Your task to perform on an android device: Show the shopping cart on bestbuy.com. Add lg ultragear to the cart on bestbuy.com, then select checkout. Image 0: 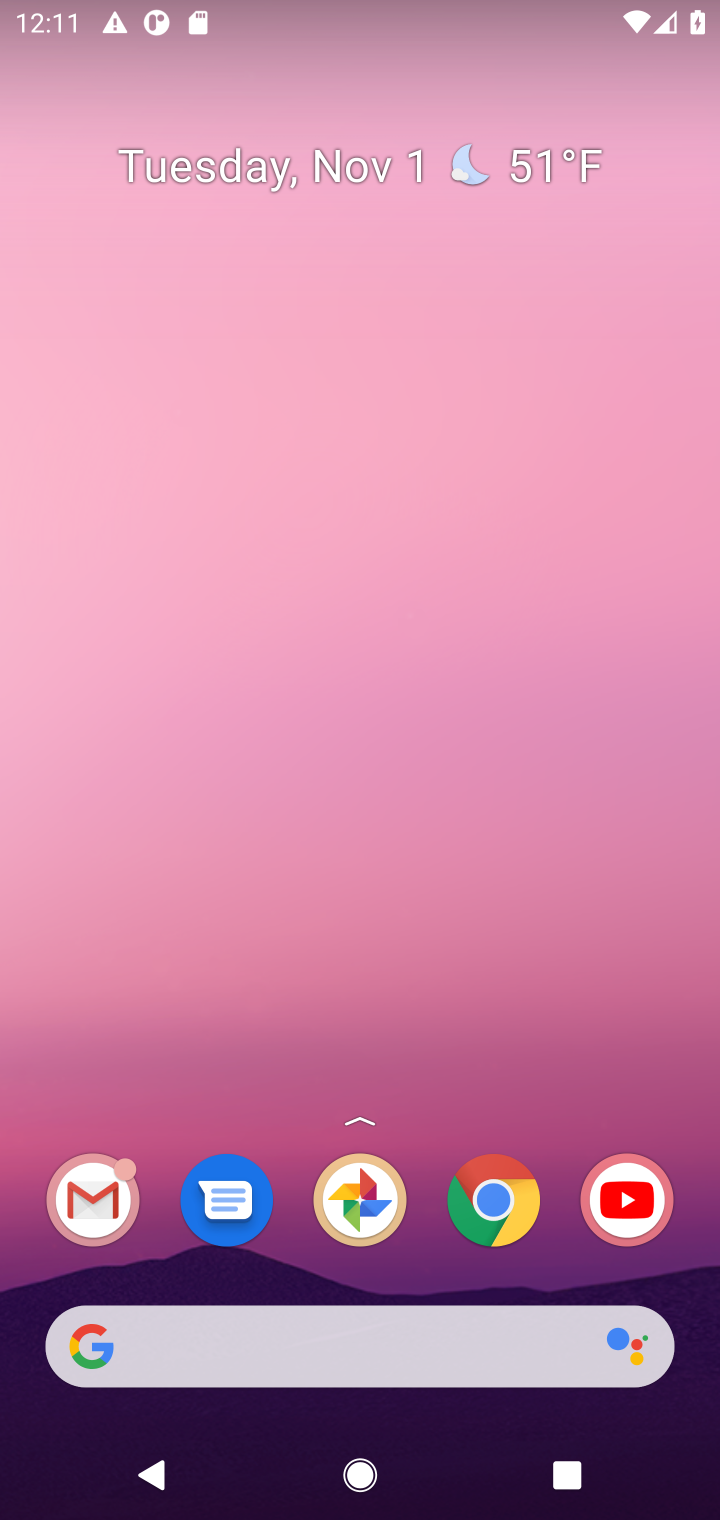
Step 0: click (507, 1201)
Your task to perform on an android device: Show the shopping cart on bestbuy.com. Add lg ultragear to the cart on bestbuy.com, then select checkout. Image 1: 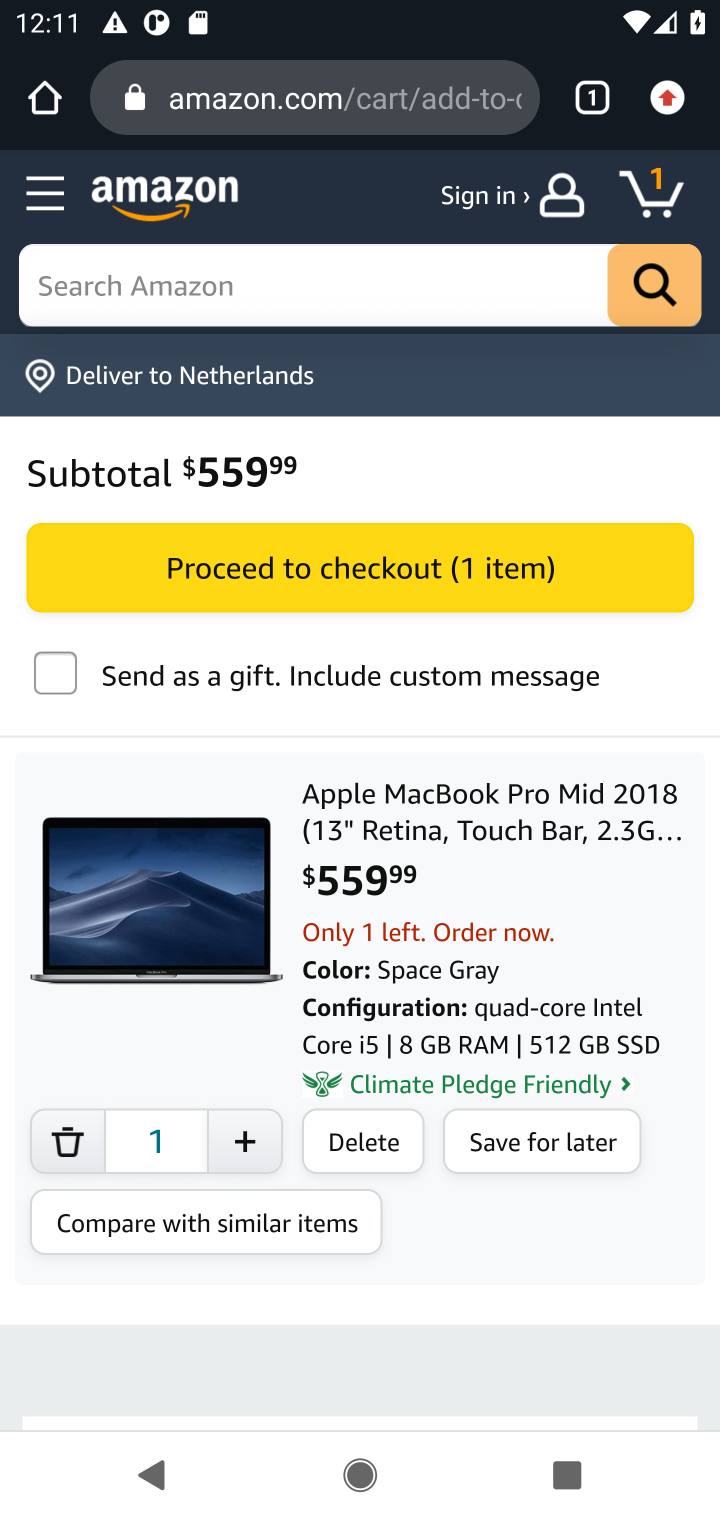
Step 1: click (327, 115)
Your task to perform on an android device: Show the shopping cart on bestbuy.com. Add lg ultragear to the cart on bestbuy.com, then select checkout. Image 2: 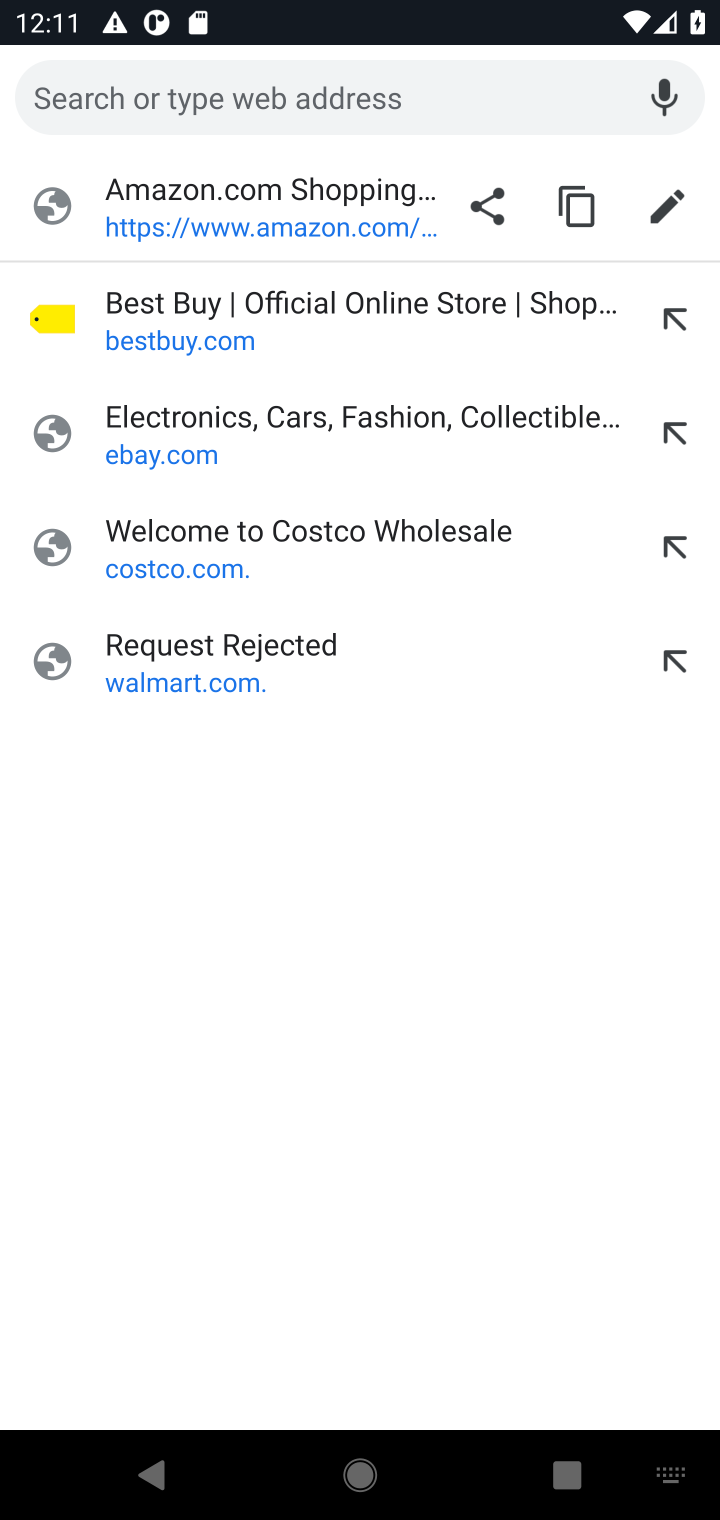
Step 2: type "bestbuy.com"
Your task to perform on an android device: Show the shopping cart on bestbuy.com. Add lg ultragear to the cart on bestbuy.com, then select checkout. Image 3: 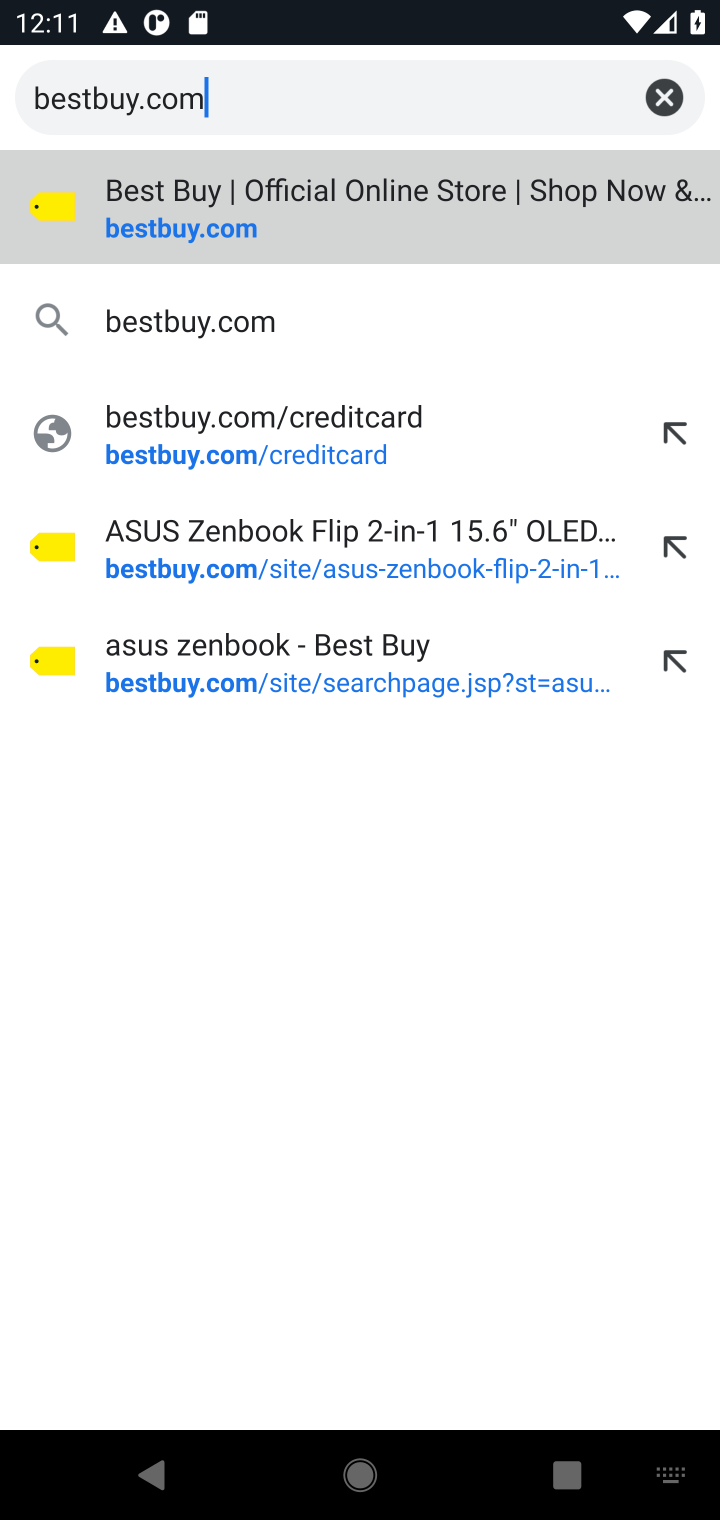
Step 3: click (196, 249)
Your task to perform on an android device: Show the shopping cart on bestbuy.com. Add lg ultragear to the cart on bestbuy.com, then select checkout. Image 4: 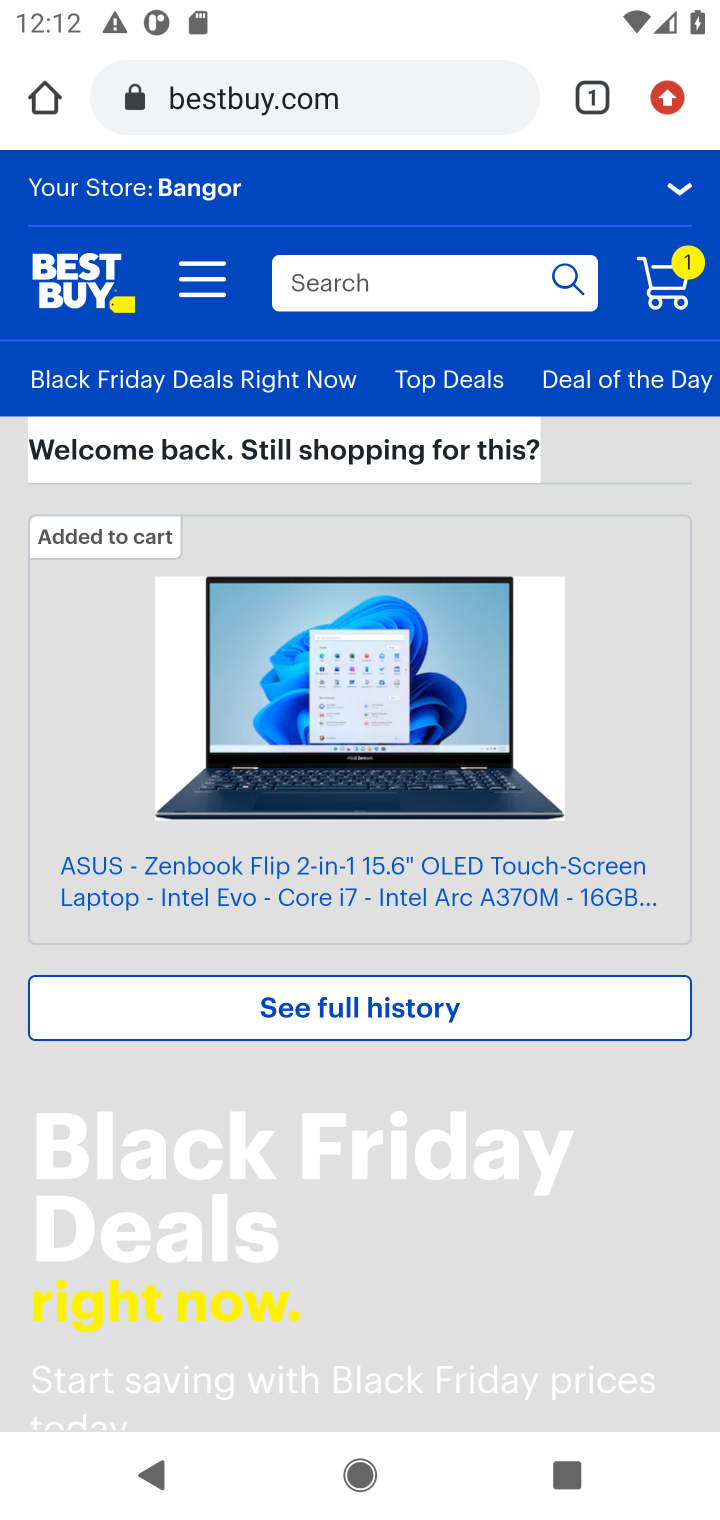
Step 4: click (668, 286)
Your task to perform on an android device: Show the shopping cart on bestbuy.com. Add lg ultragear to the cart on bestbuy.com, then select checkout. Image 5: 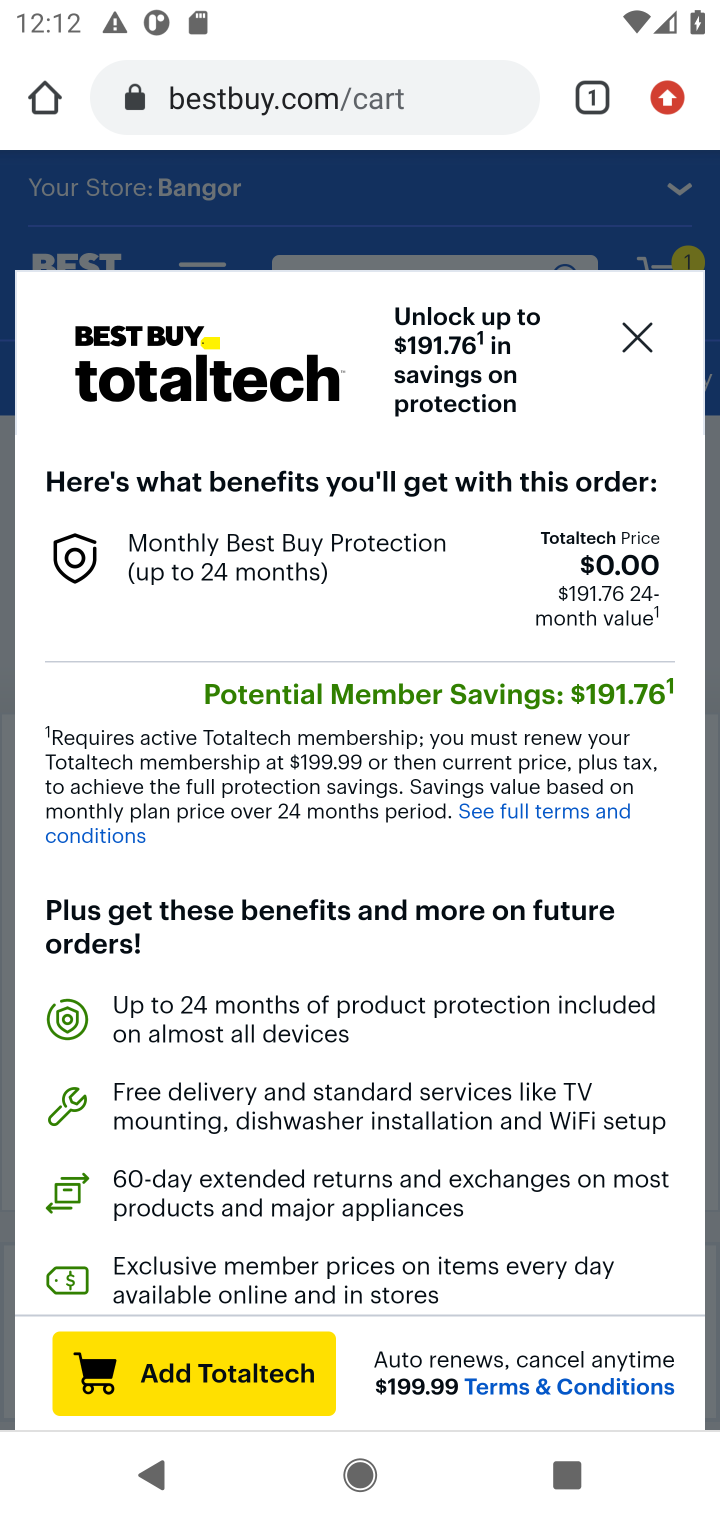
Step 5: click (625, 337)
Your task to perform on an android device: Show the shopping cart on bestbuy.com. Add lg ultragear to the cart on bestbuy.com, then select checkout. Image 6: 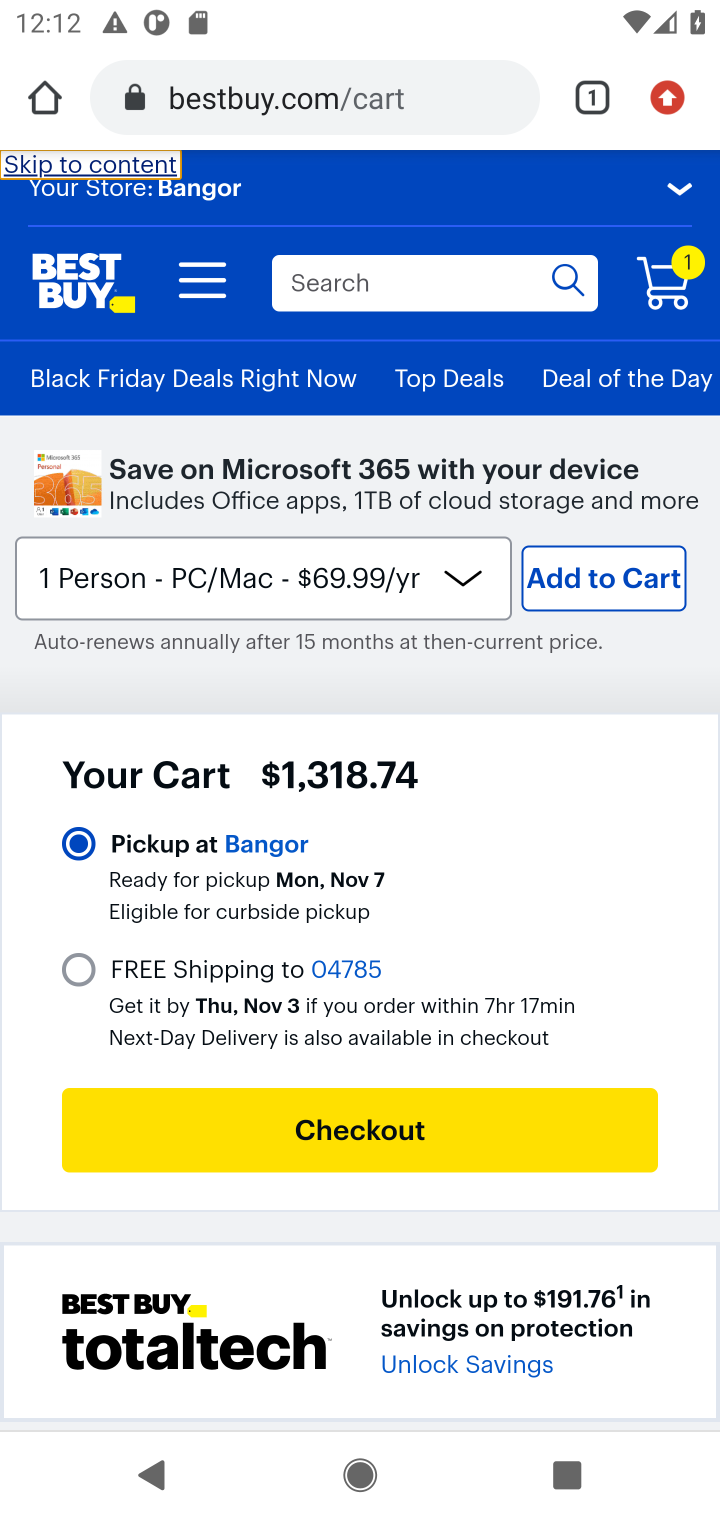
Step 6: click (409, 282)
Your task to perform on an android device: Show the shopping cart on bestbuy.com. Add lg ultragear to the cart on bestbuy.com, then select checkout. Image 7: 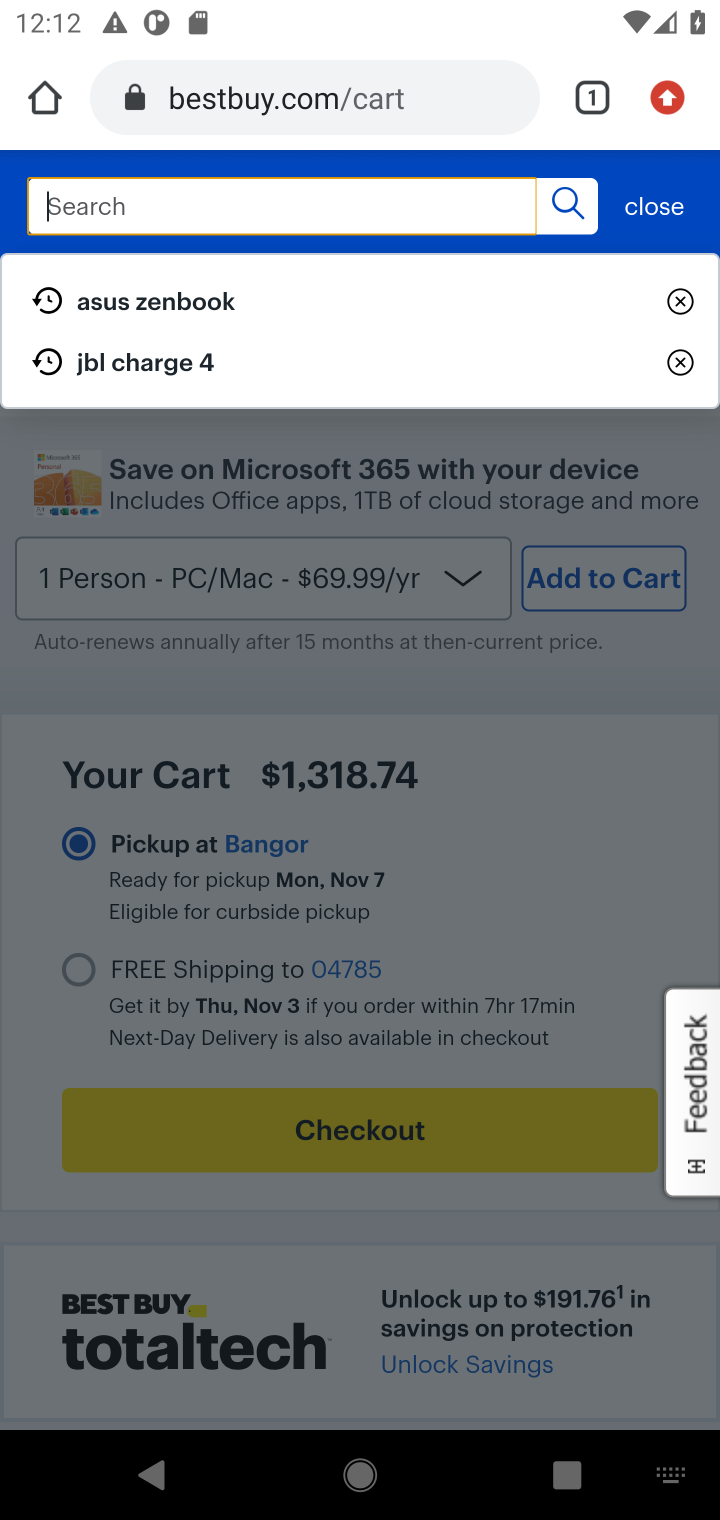
Step 7: type " lg ultragear "
Your task to perform on an android device: Show the shopping cart on bestbuy.com. Add lg ultragear to the cart on bestbuy.com, then select checkout. Image 8: 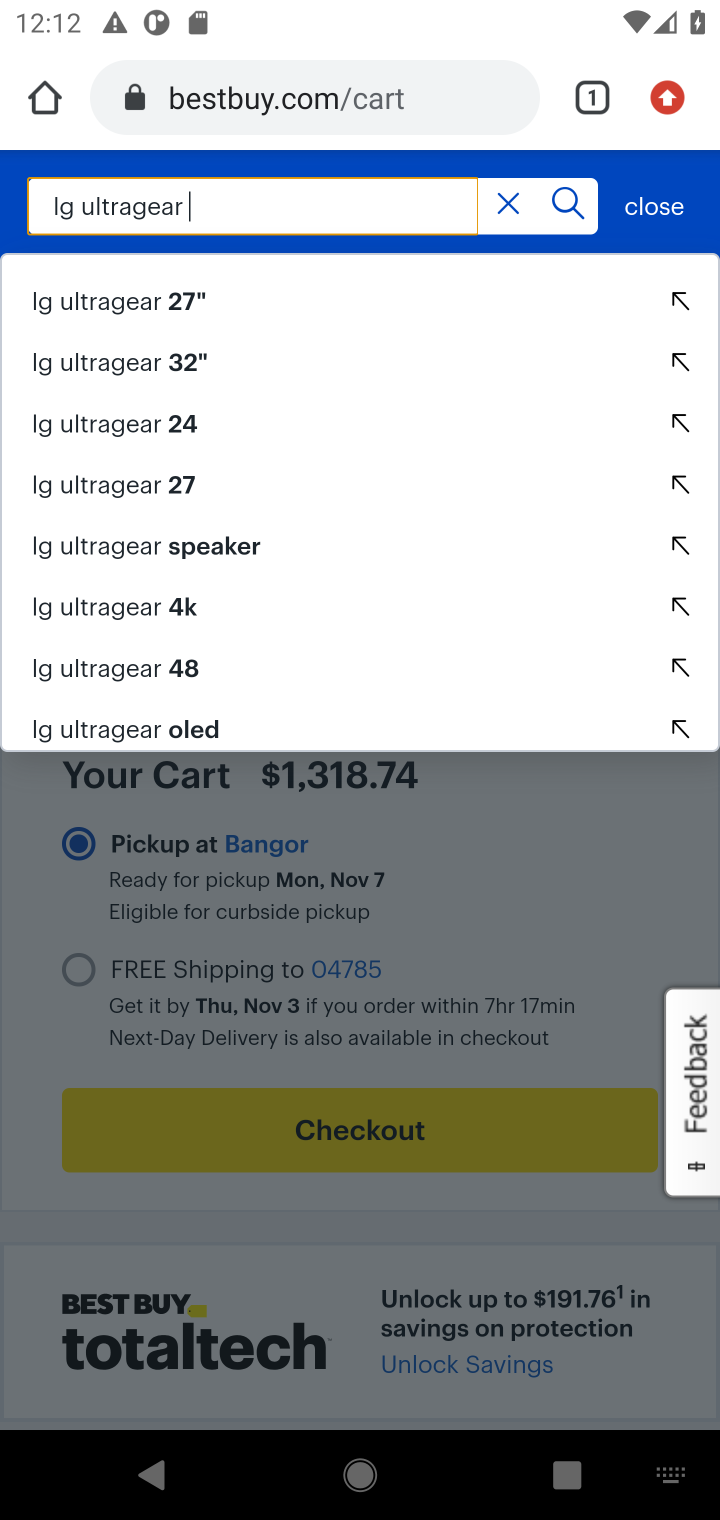
Step 8: click (133, 321)
Your task to perform on an android device: Show the shopping cart on bestbuy.com. Add lg ultragear to the cart on bestbuy.com, then select checkout. Image 9: 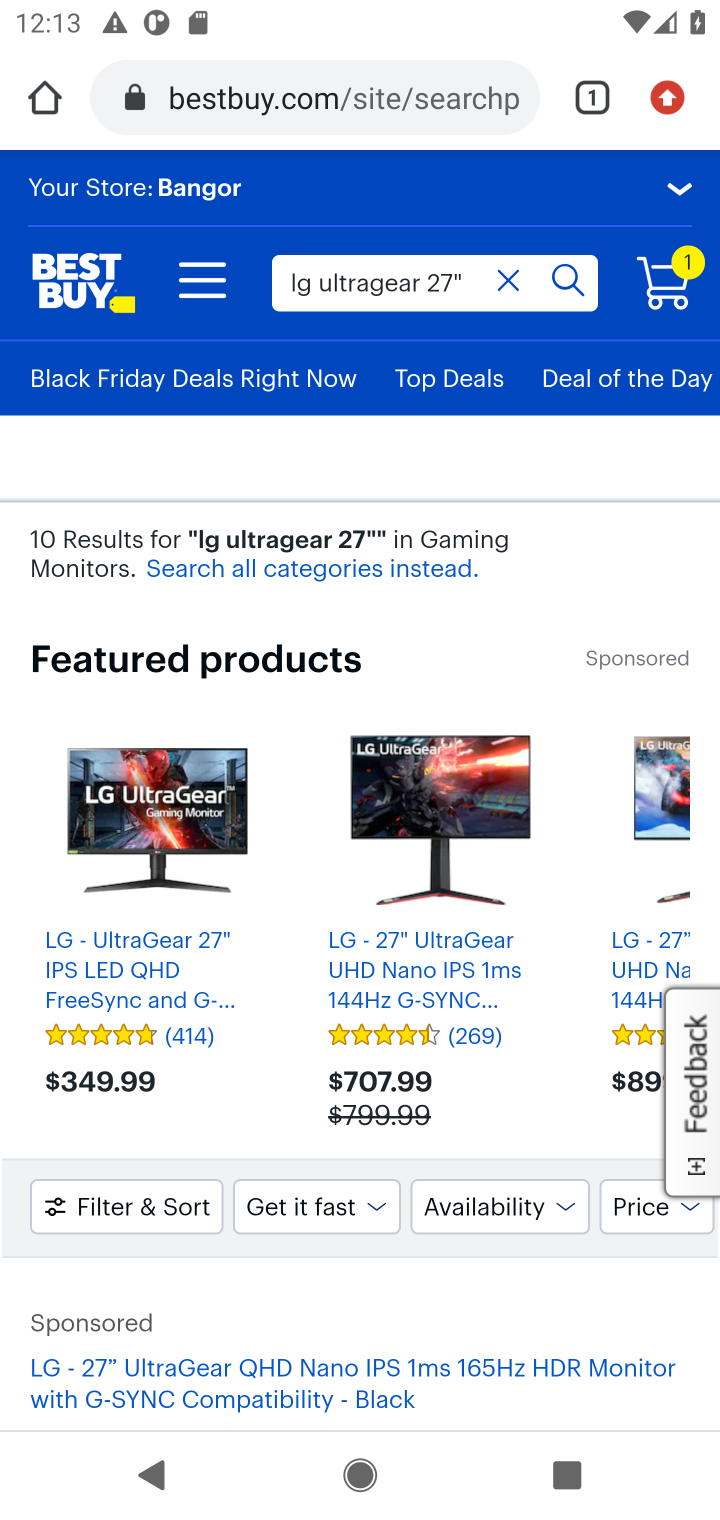
Step 9: drag from (267, 1100) to (308, 641)
Your task to perform on an android device: Show the shopping cart on bestbuy.com. Add lg ultragear to the cart on bestbuy.com, then select checkout. Image 10: 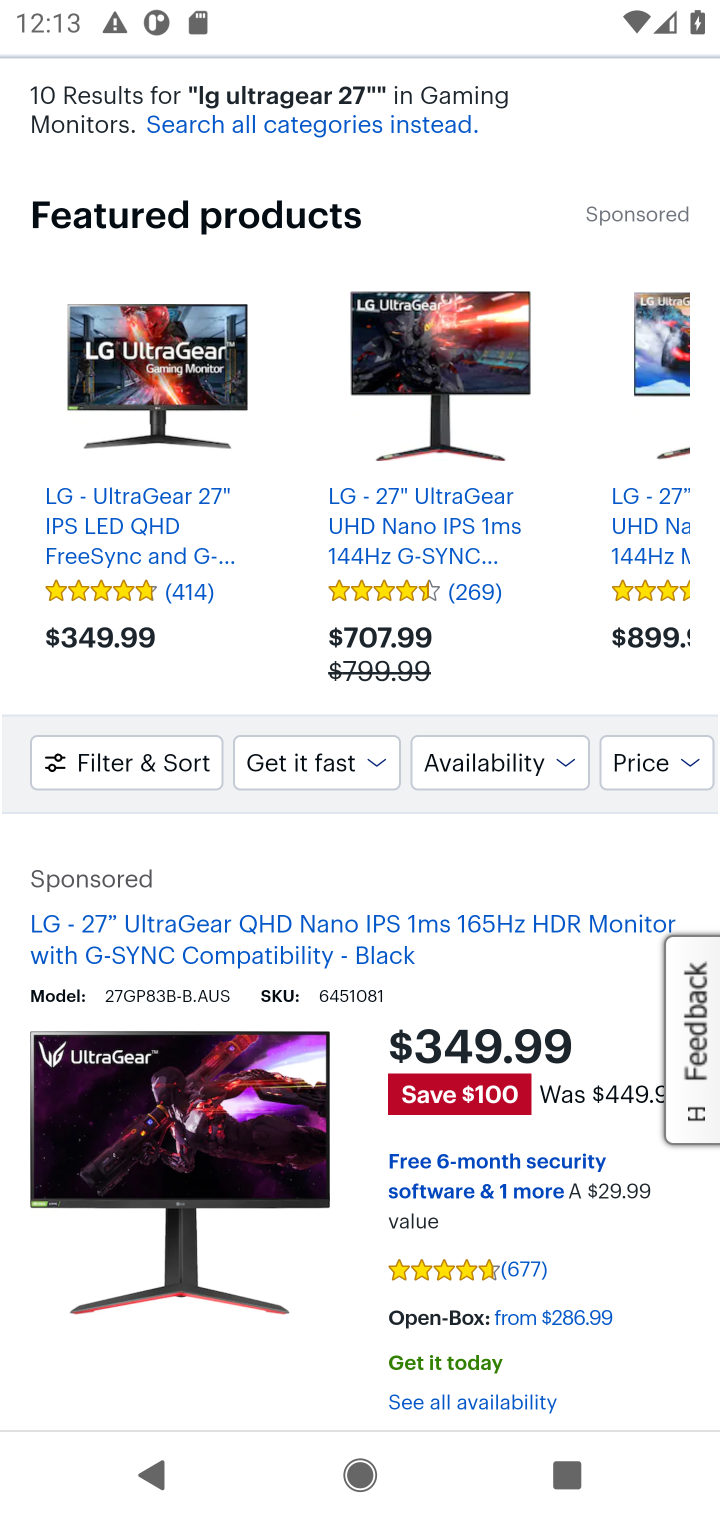
Step 10: click (225, 1169)
Your task to perform on an android device: Show the shopping cart on bestbuy.com. Add lg ultragear to the cart on bestbuy.com, then select checkout. Image 11: 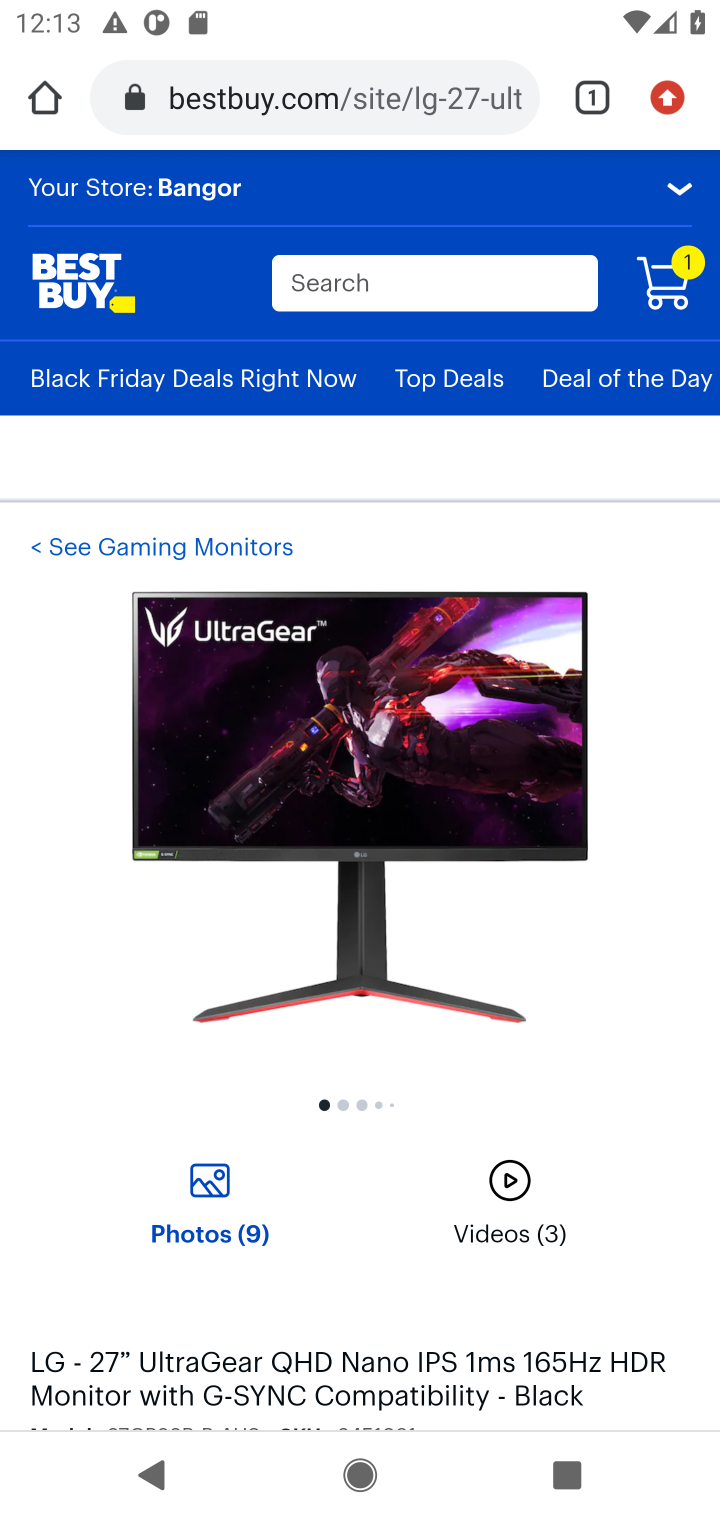
Step 11: drag from (379, 1152) to (357, 455)
Your task to perform on an android device: Show the shopping cart on bestbuy.com. Add lg ultragear to the cart on bestbuy.com, then select checkout. Image 12: 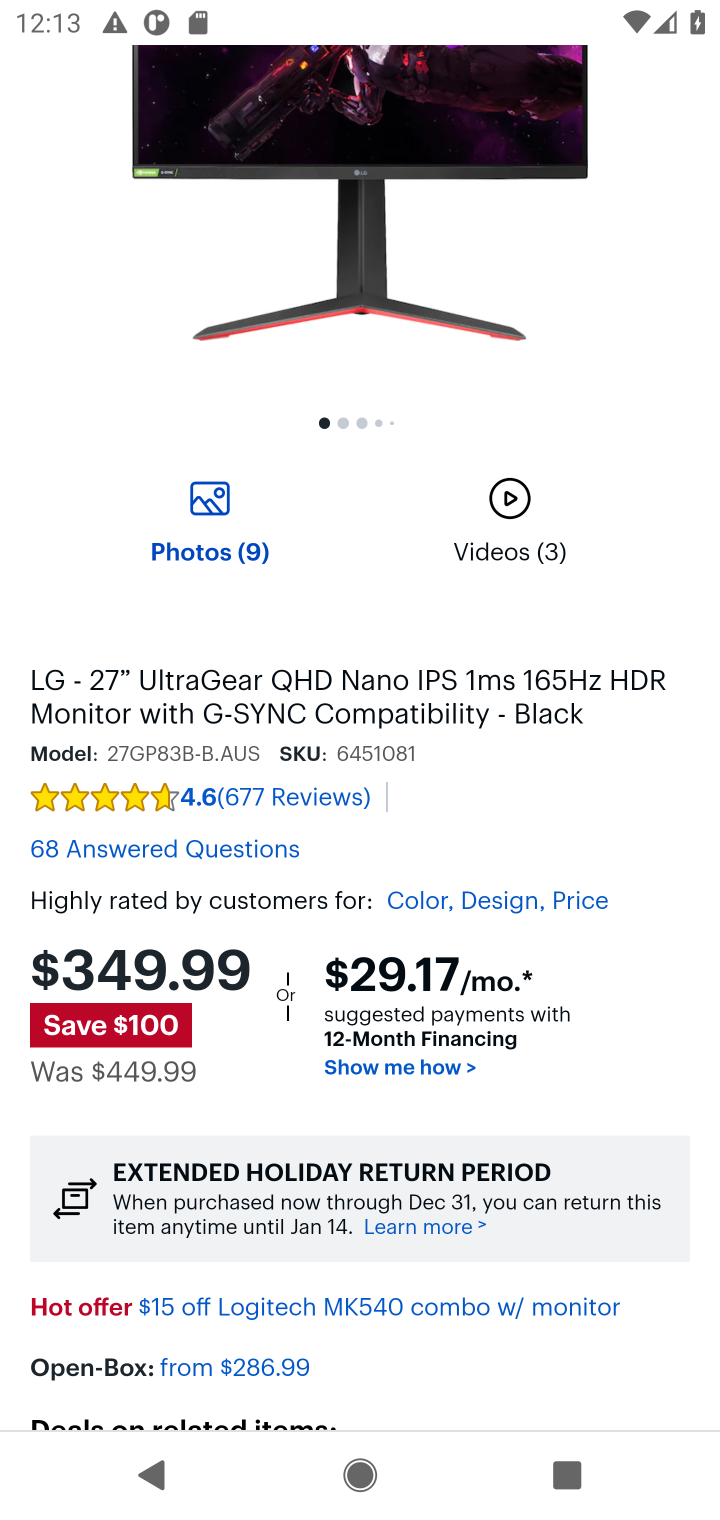
Step 12: drag from (296, 887) to (300, 401)
Your task to perform on an android device: Show the shopping cart on bestbuy.com. Add lg ultragear to the cart on bestbuy.com, then select checkout. Image 13: 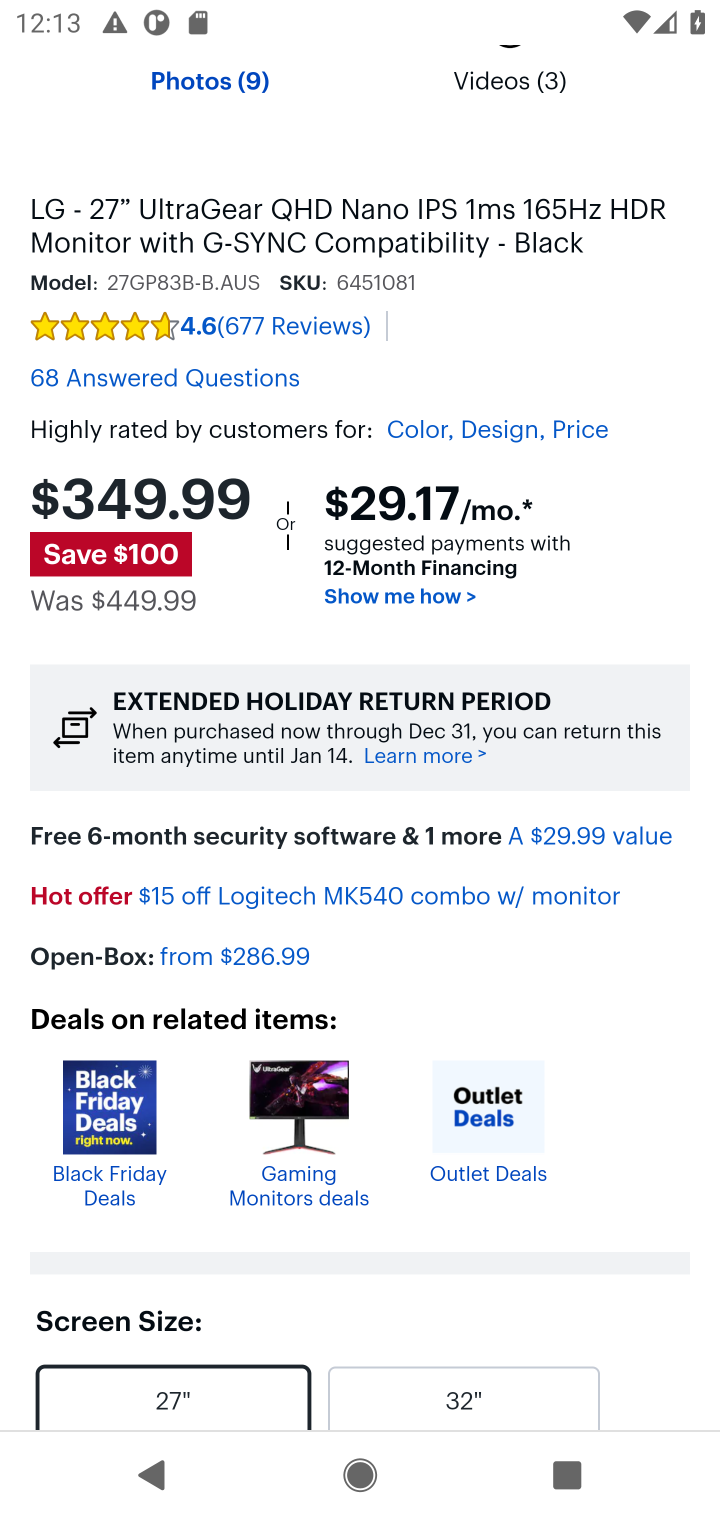
Step 13: drag from (291, 919) to (291, 512)
Your task to perform on an android device: Show the shopping cart on bestbuy.com. Add lg ultragear to the cart on bestbuy.com, then select checkout. Image 14: 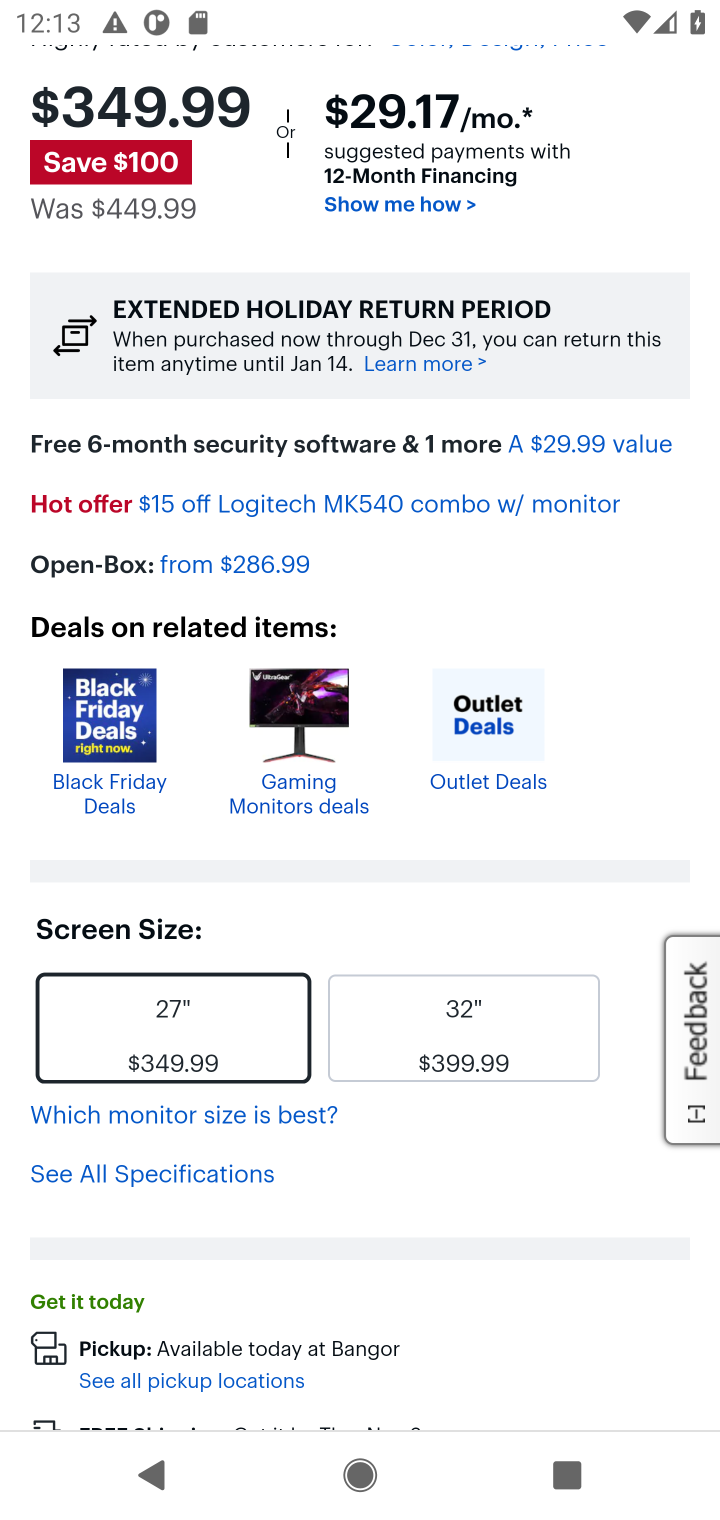
Step 14: drag from (295, 1158) to (293, 415)
Your task to perform on an android device: Show the shopping cart on bestbuy.com. Add lg ultragear to the cart on bestbuy.com, then select checkout. Image 15: 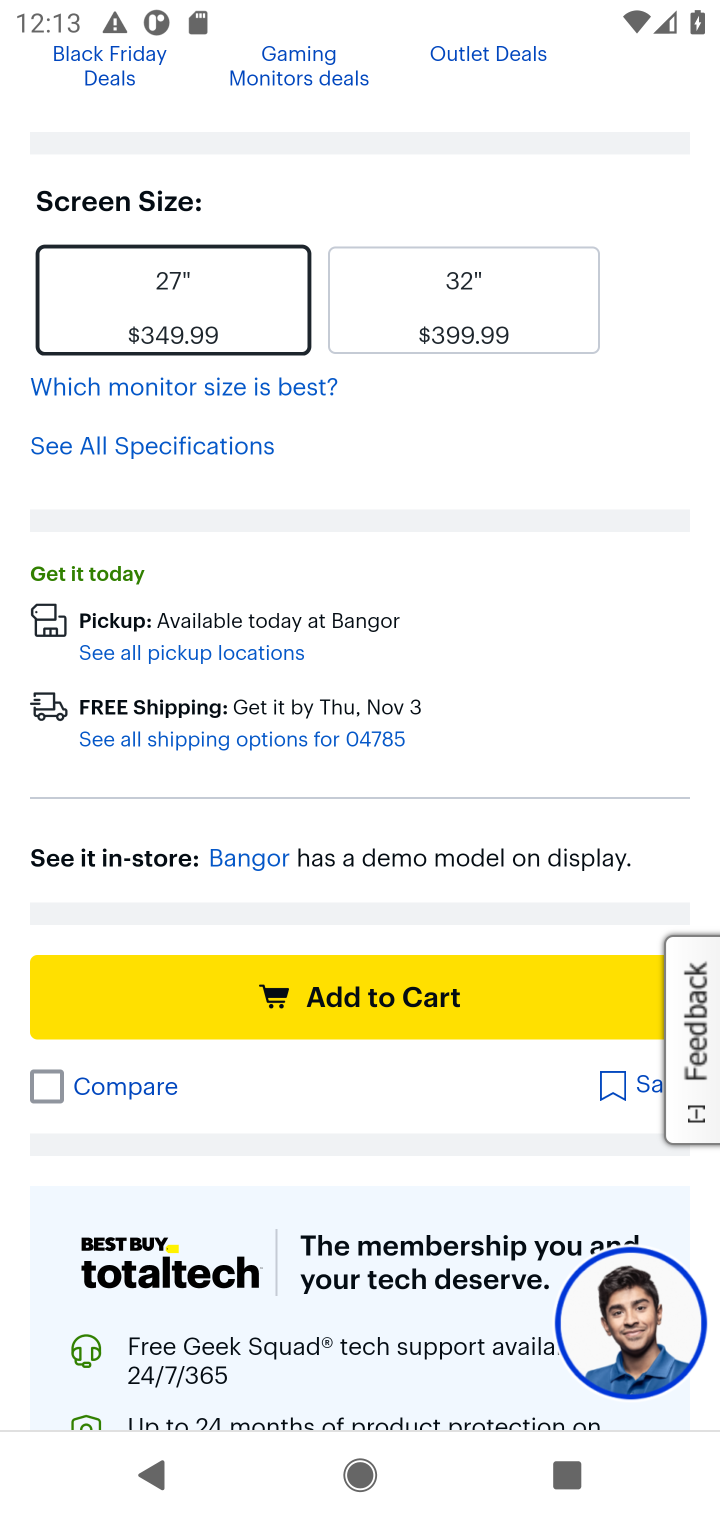
Step 15: click (329, 991)
Your task to perform on an android device: Show the shopping cart on bestbuy.com. Add lg ultragear to the cart on bestbuy.com, then select checkout. Image 16: 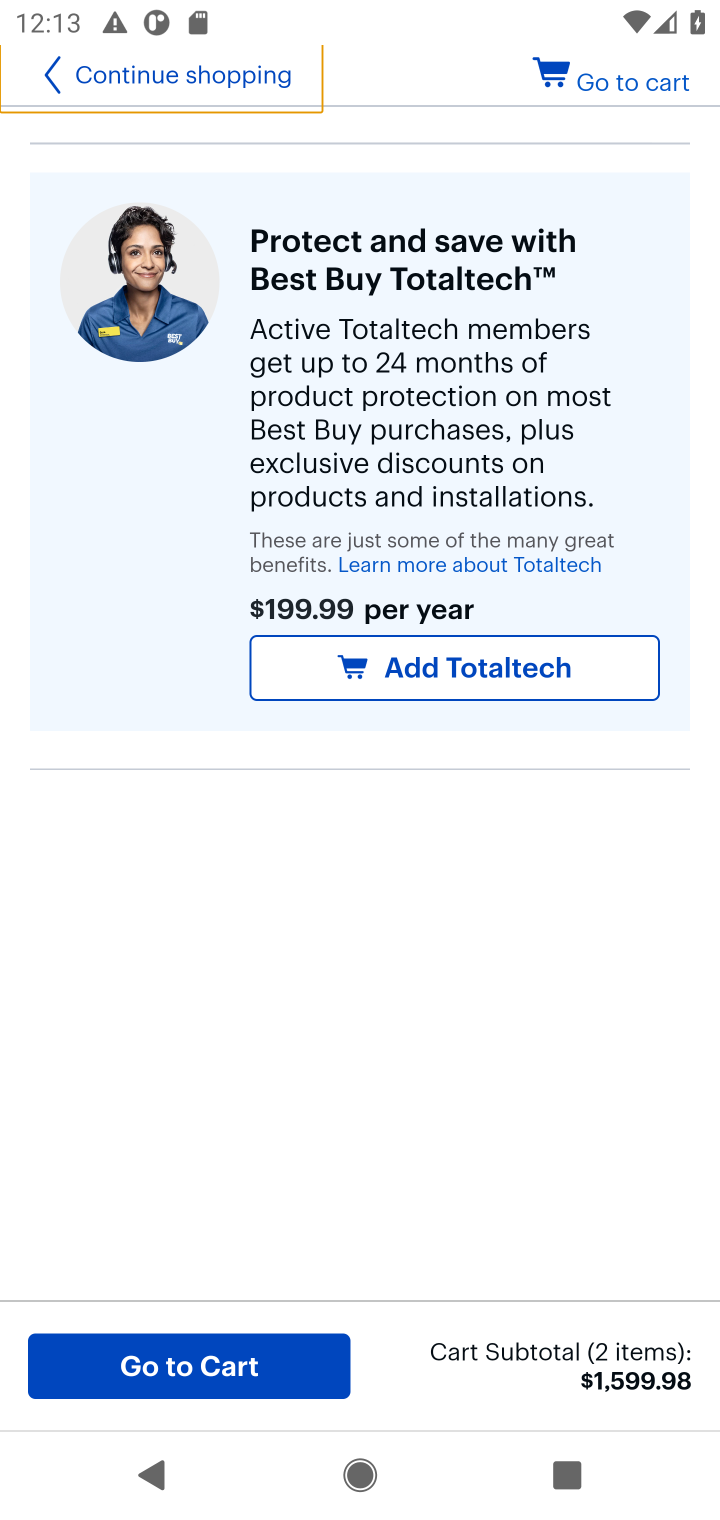
Step 16: click (596, 86)
Your task to perform on an android device: Show the shopping cart on bestbuy.com. Add lg ultragear to the cart on bestbuy.com, then select checkout. Image 17: 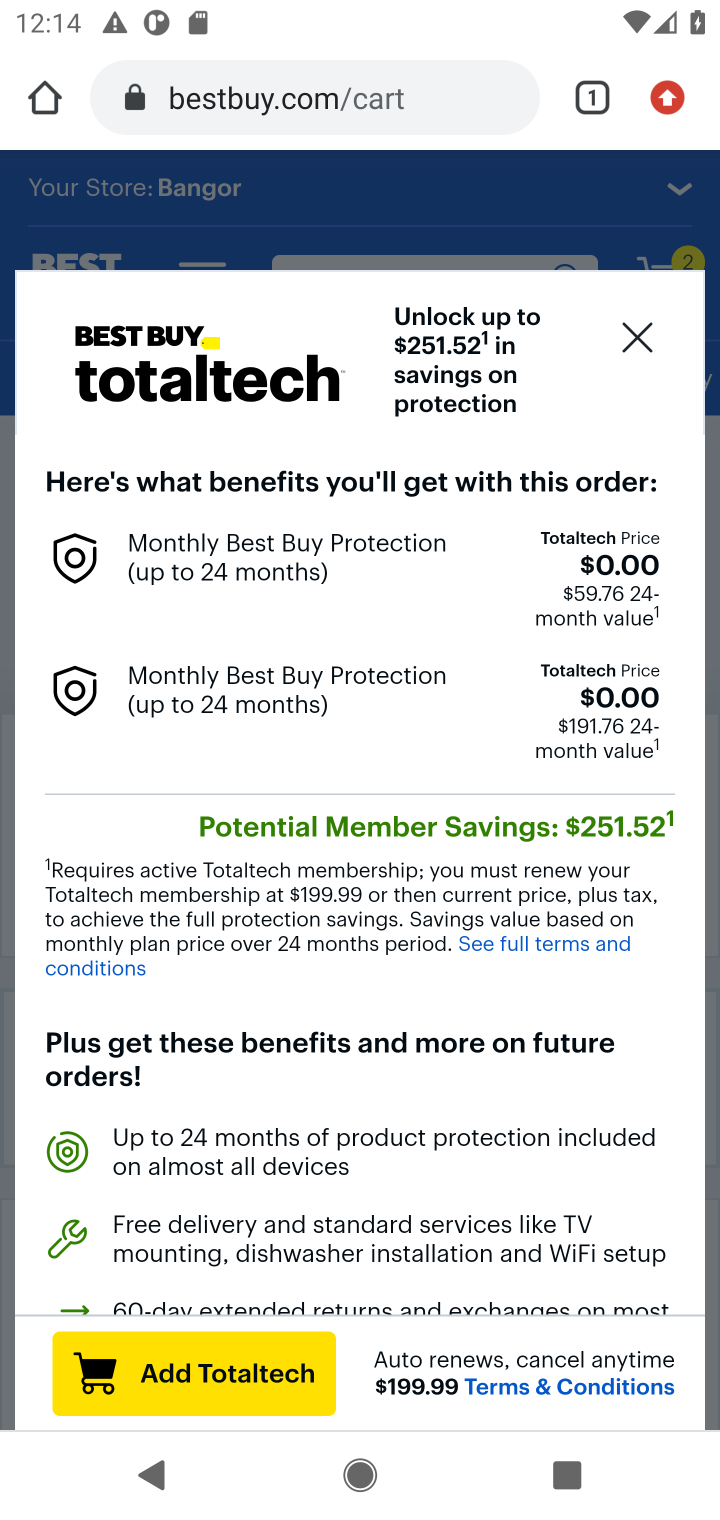
Step 17: drag from (298, 1137) to (343, 705)
Your task to perform on an android device: Show the shopping cart on bestbuy.com. Add lg ultragear to the cart on bestbuy.com, then select checkout. Image 18: 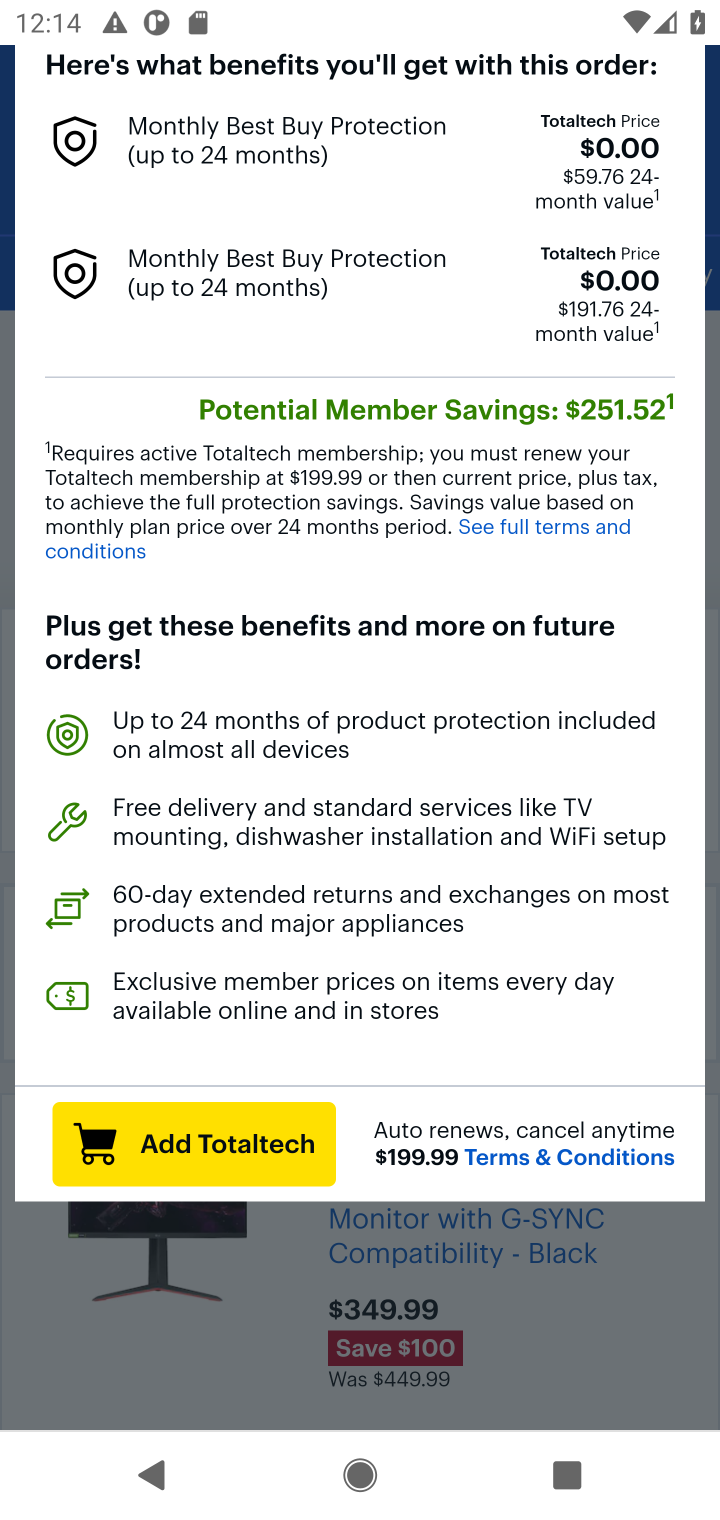
Step 18: drag from (543, 354) to (541, 852)
Your task to perform on an android device: Show the shopping cart on bestbuy.com. Add lg ultragear to the cart on bestbuy.com, then select checkout. Image 19: 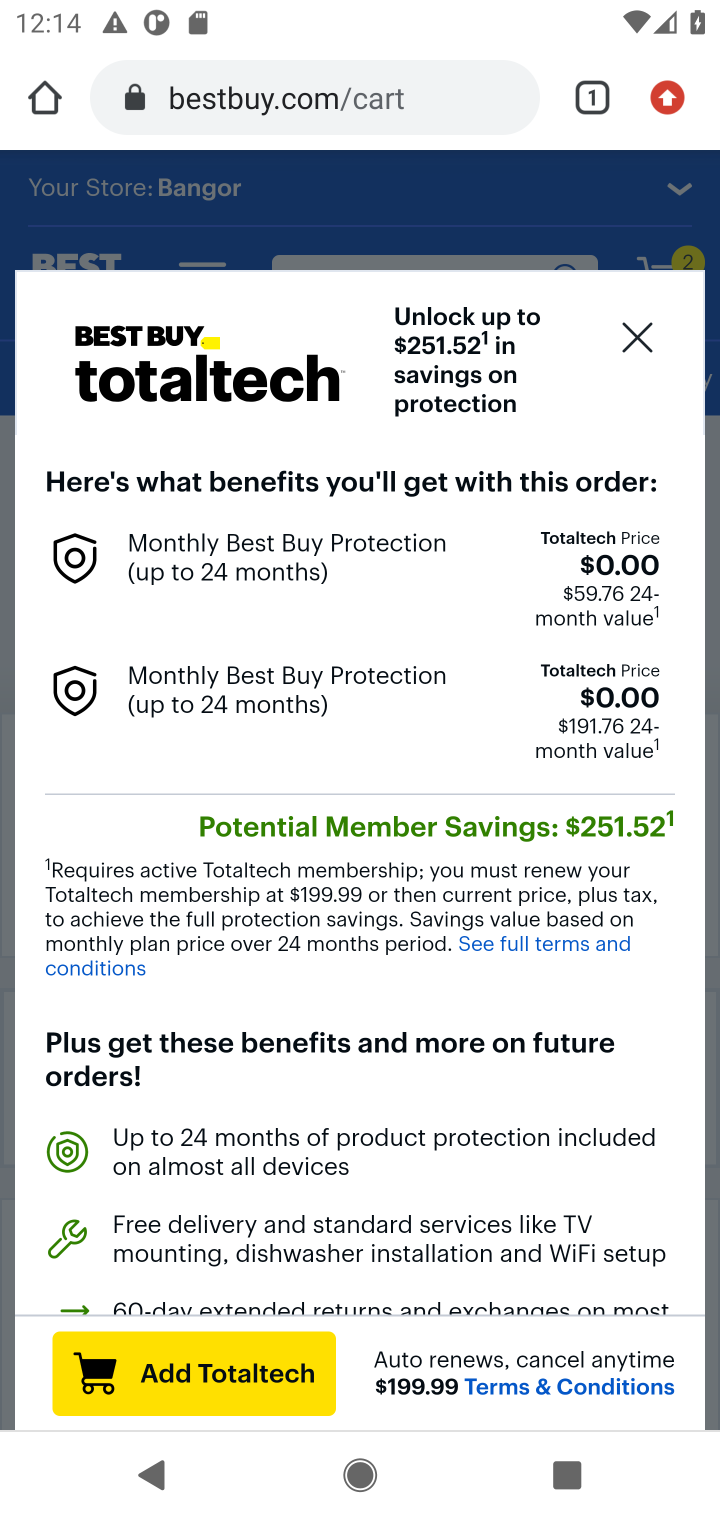
Step 19: click (643, 346)
Your task to perform on an android device: Show the shopping cart on bestbuy.com. Add lg ultragear to the cart on bestbuy.com, then select checkout. Image 20: 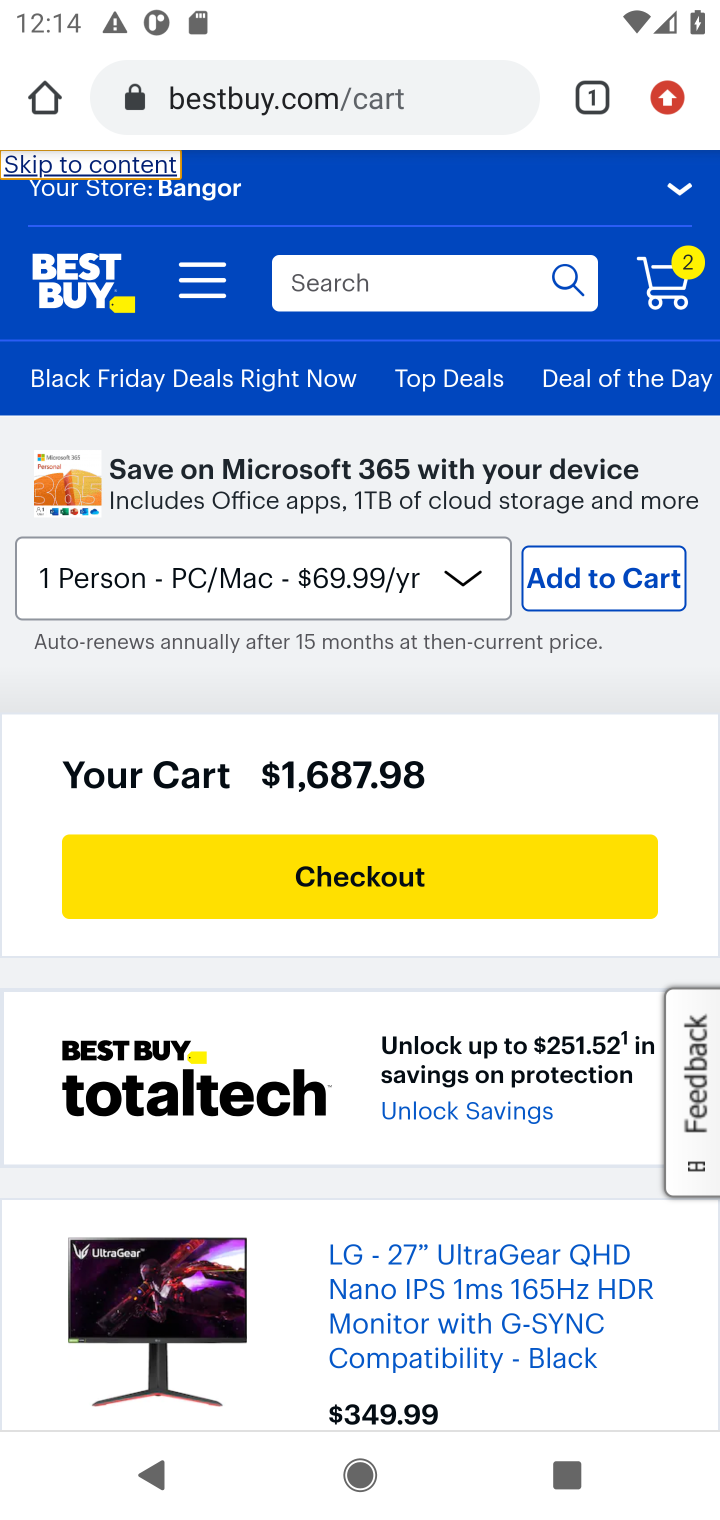
Step 20: click (359, 897)
Your task to perform on an android device: Show the shopping cart on bestbuy.com. Add lg ultragear to the cart on bestbuy.com, then select checkout. Image 21: 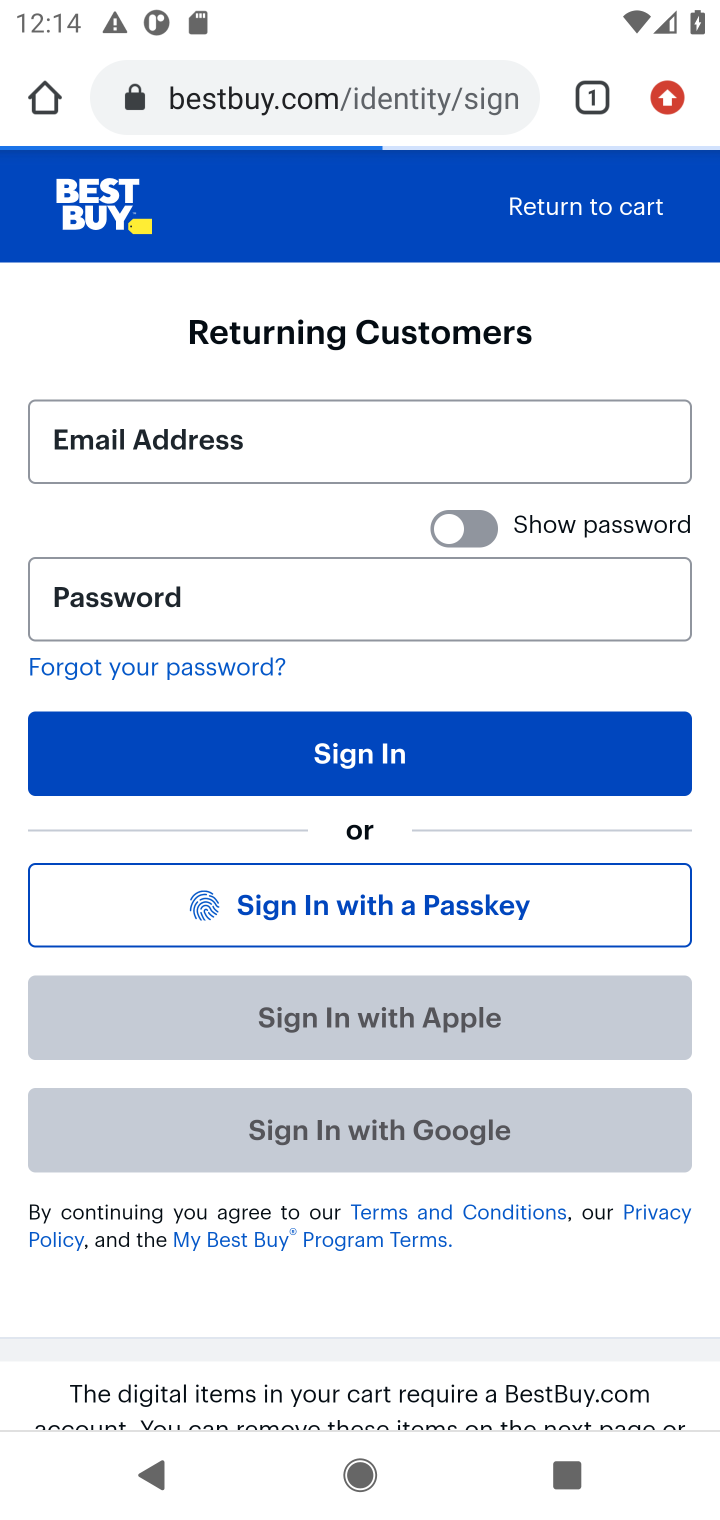
Step 21: task complete